Your task to perform on an android device: Search for seafood restaurants on Google Maps Image 0: 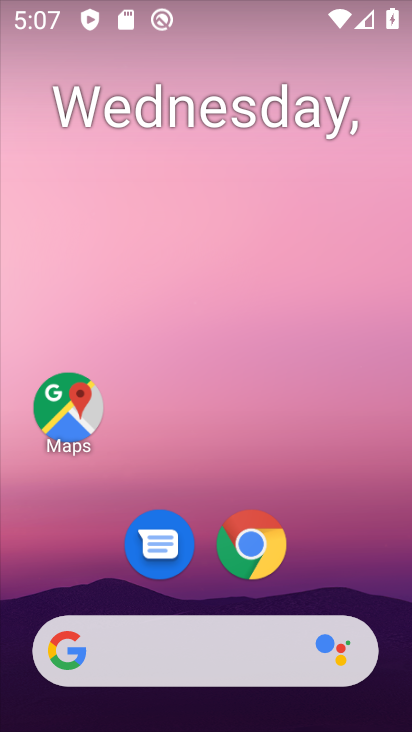
Step 0: click (73, 409)
Your task to perform on an android device: Search for seafood restaurants on Google Maps Image 1: 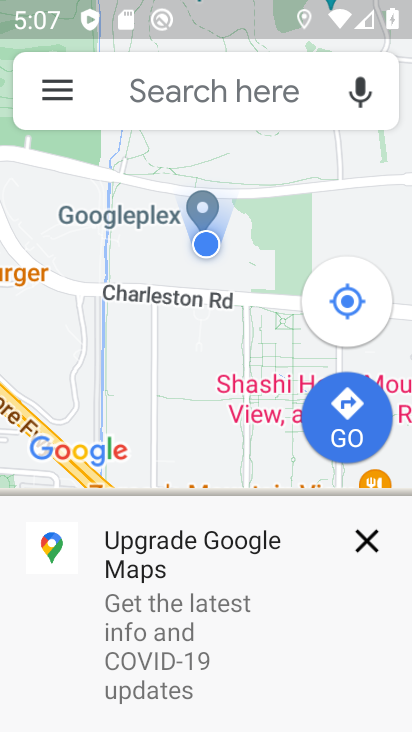
Step 1: click (181, 87)
Your task to perform on an android device: Search for seafood restaurants on Google Maps Image 2: 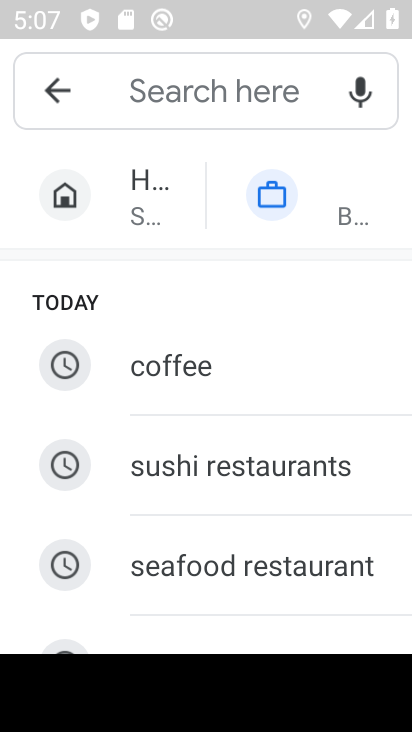
Step 2: type "seafood restaurants"
Your task to perform on an android device: Search for seafood restaurants on Google Maps Image 3: 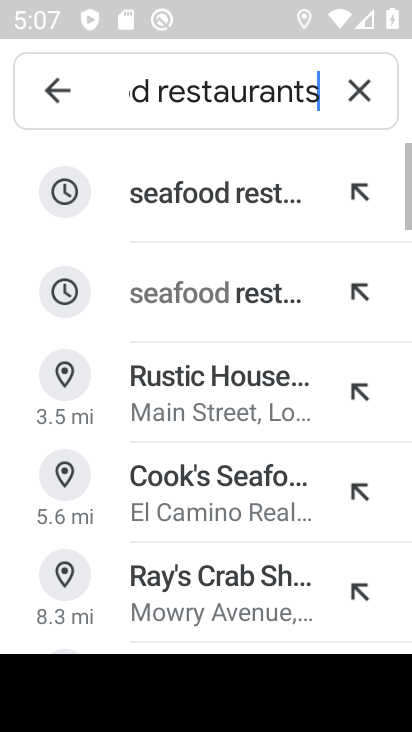
Step 3: click (172, 189)
Your task to perform on an android device: Search for seafood restaurants on Google Maps Image 4: 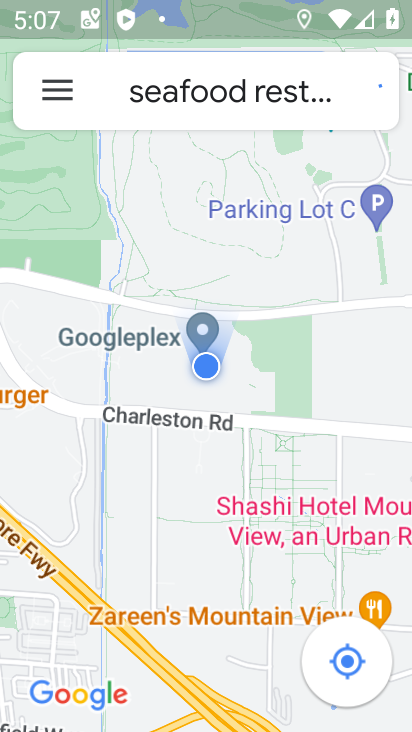
Step 4: task complete